Your task to perform on an android device: Open Youtube and go to "Your channel" Image 0: 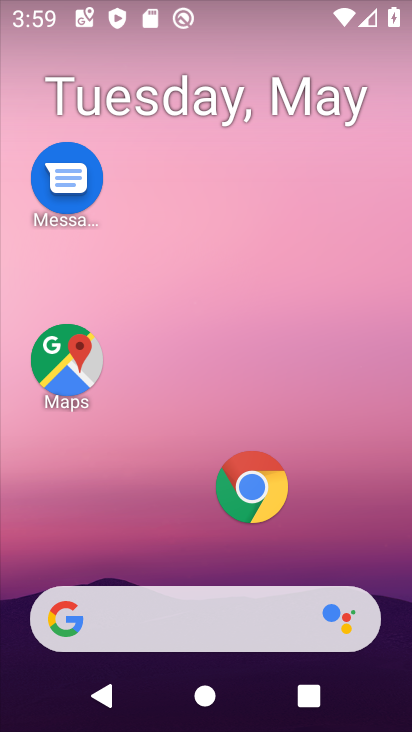
Step 0: drag from (301, 568) to (366, 28)
Your task to perform on an android device: Open Youtube and go to "Your channel" Image 1: 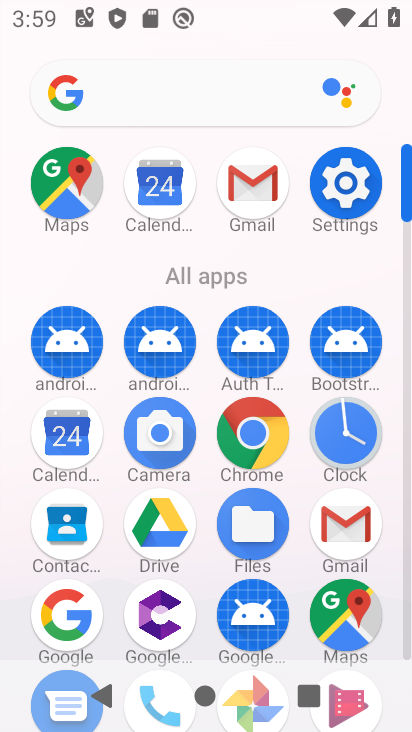
Step 1: drag from (161, 334) to (239, 0)
Your task to perform on an android device: Open Youtube and go to "Your channel" Image 2: 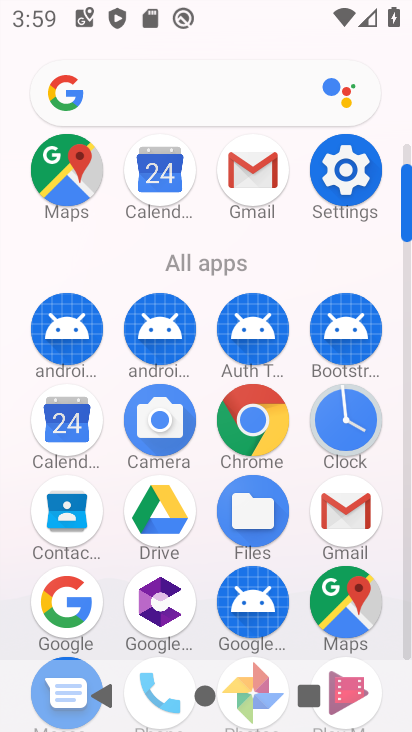
Step 2: drag from (210, 634) to (248, 263)
Your task to perform on an android device: Open Youtube and go to "Your channel" Image 3: 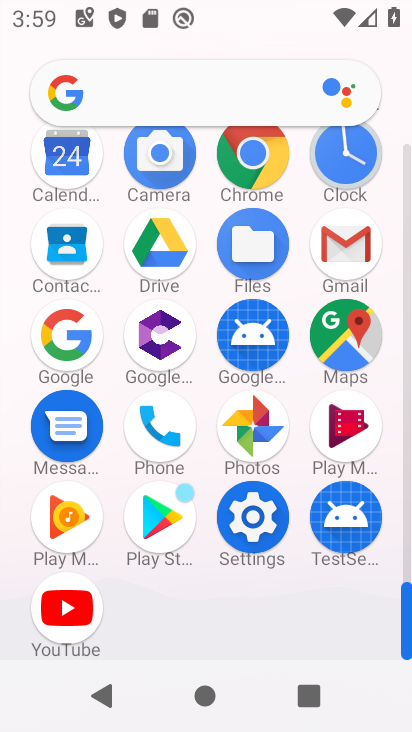
Step 3: click (46, 647)
Your task to perform on an android device: Open Youtube and go to "Your channel" Image 4: 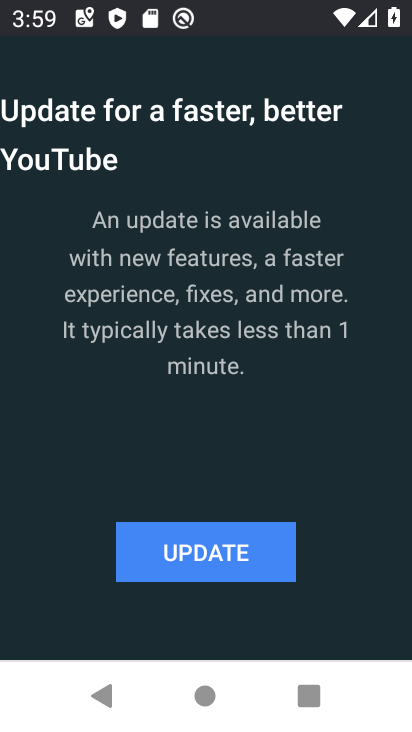
Step 4: click (174, 547)
Your task to perform on an android device: Open Youtube and go to "Your channel" Image 5: 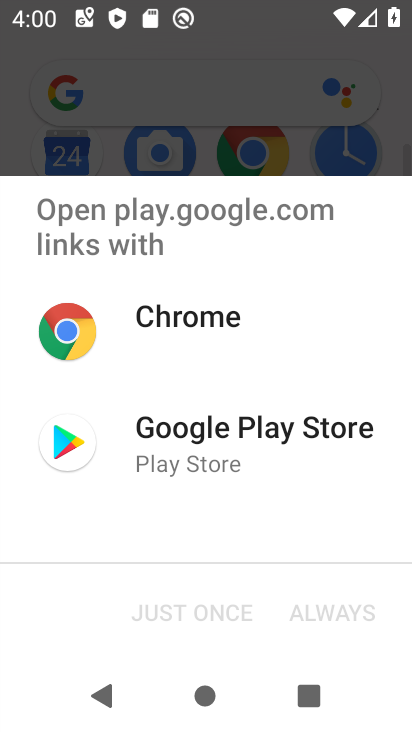
Step 5: click (193, 474)
Your task to perform on an android device: Open Youtube and go to "Your channel" Image 6: 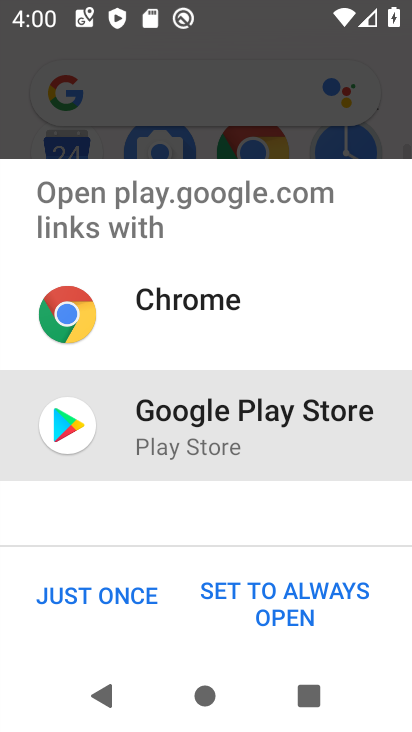
Step 6: click (196, 466)
Your task to perform on an android device: Open Youtube and go to "Your channel" Image 7: 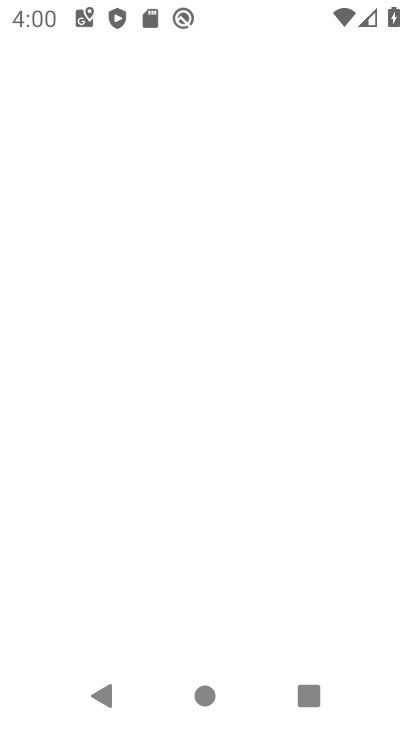
Step 7: click (265, 589)
Your task to perform on an android device: Open Youtube and go to "Your channel" Image 8: 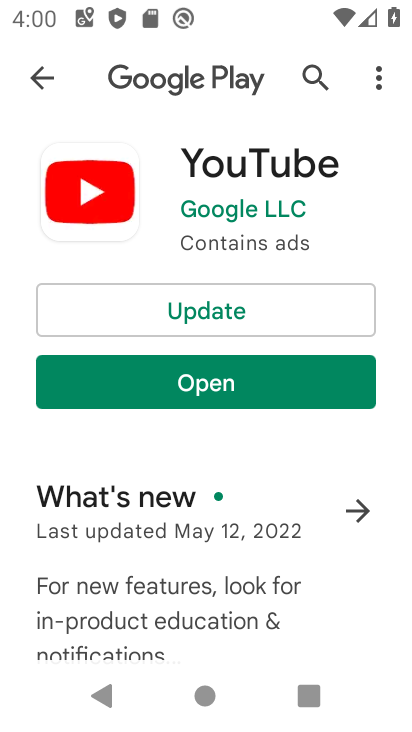
Step 8: click (197, 330)
Your task to perform on an android device: Open Youtube and go to "Your channel" Image 9: 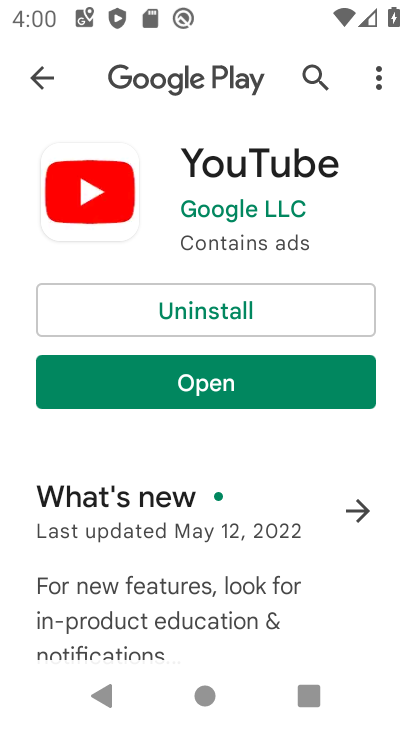
Step 9: click (223, 390)
Your task to perform on an android device: Open Youtube and go to "Your channel" Image 10: 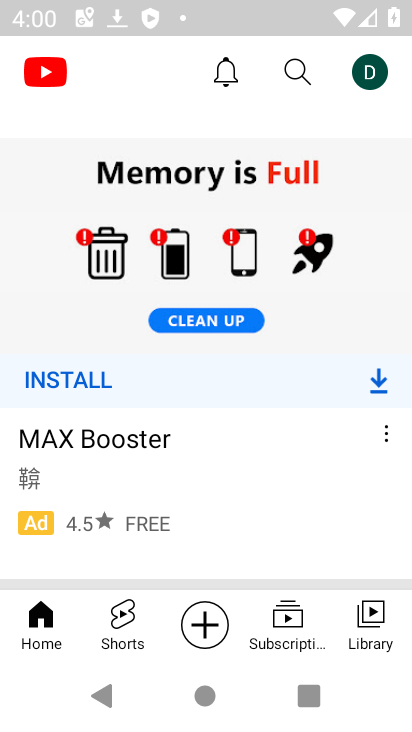
Step 10: click (375, 74)
Your task to perform on an android device: Open Youtube and go to "Your channel" Image 11: 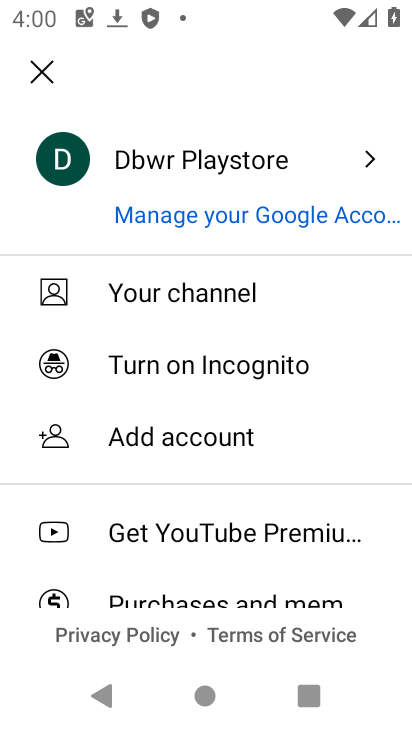
Step 11: click (201, 291)
Your task to perform on an android device: Open Youtube and go to "Your channel" Image 12: 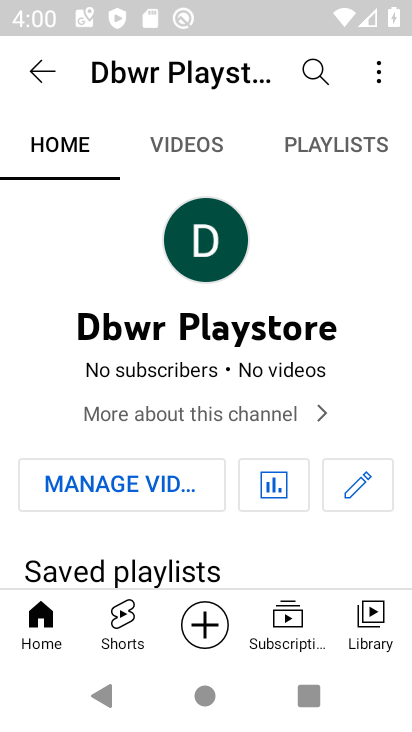
Step 12: task complete